Your task to perform on an android device: Go to ESPN.com Image 0: 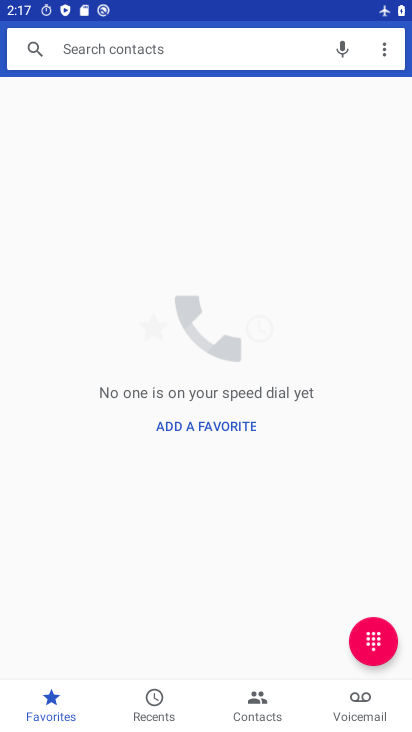
Step 0: press home button
Your task to perform on an android device: Go to ESPN.com Image 1: 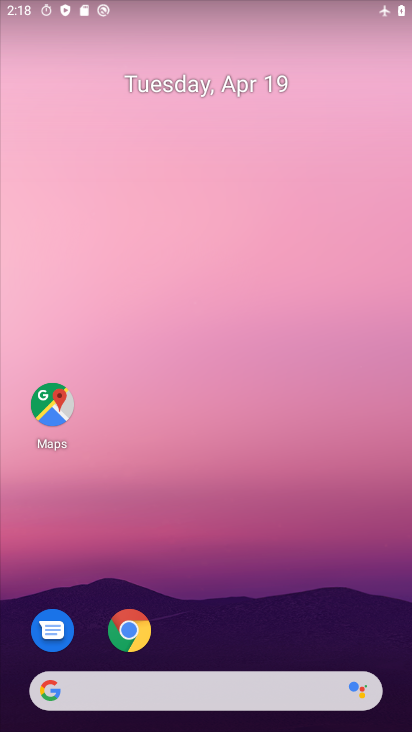
Step 1: click (232, 695)
Your task to perform on an android device: Go to ESPN.com Image 2: 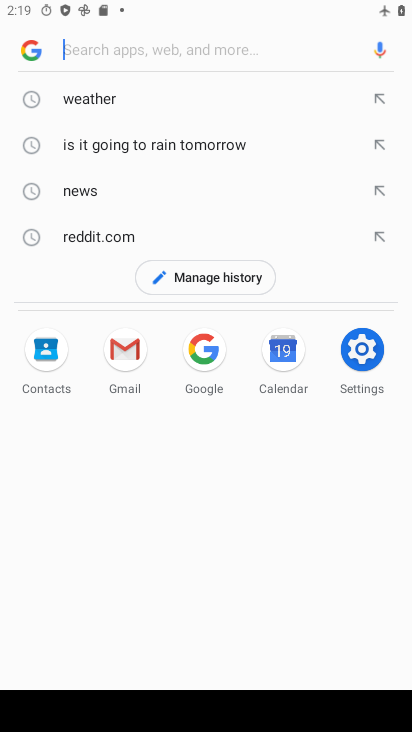
Step 2: type "ESPN.com"
Your task to perform on an android device: Go to ESPN.com Image 3: 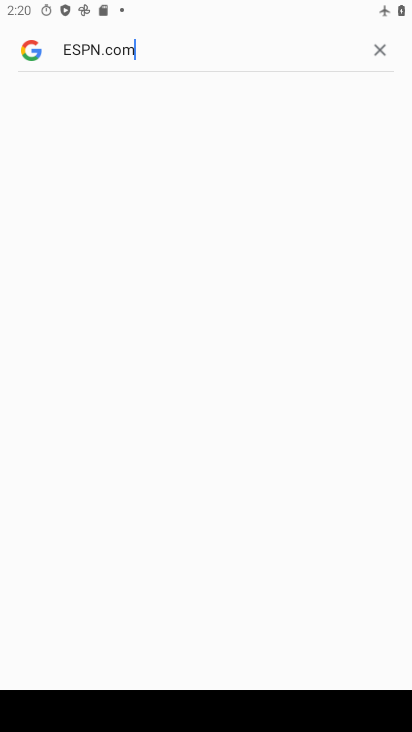
Step 3: task complete